Your task to perform on an android device: show emergency info Image 0: 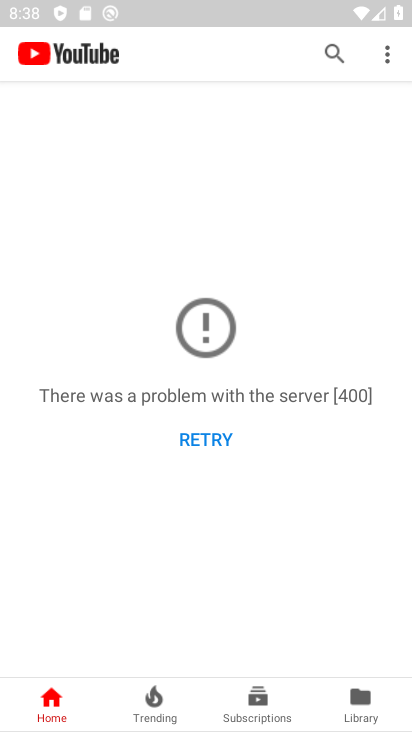
Step 0: press home button
Your task to perform on an android device: show emergency info Image 1: 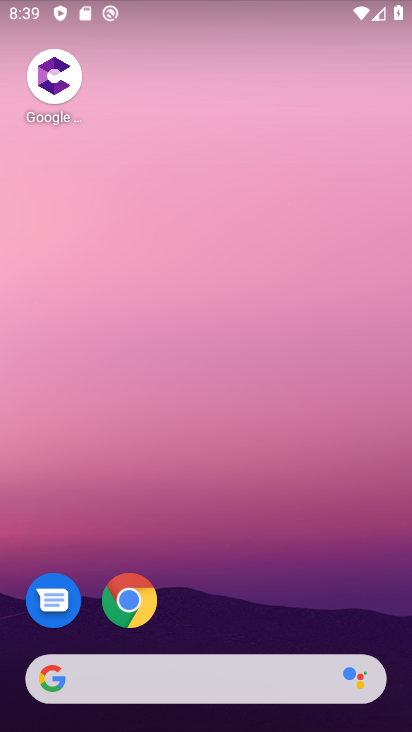
Step 1: drag from (195, 628) to (218, 185)
Your task to perform on an android device: show emergency info Image 2: 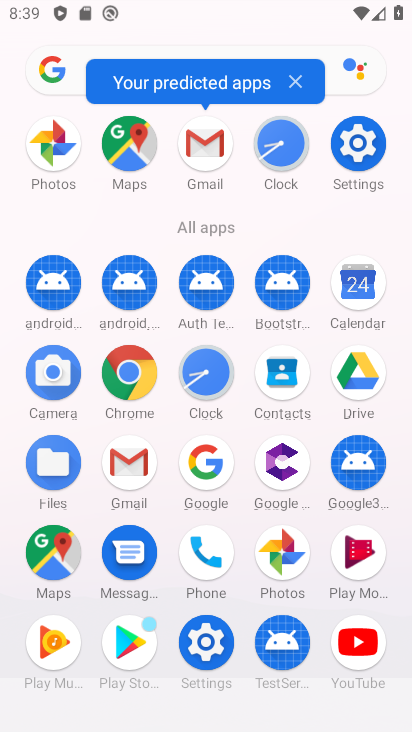
Step 2: click (377, 124)
Your task to perform on an android device: show emergency info Image 3: 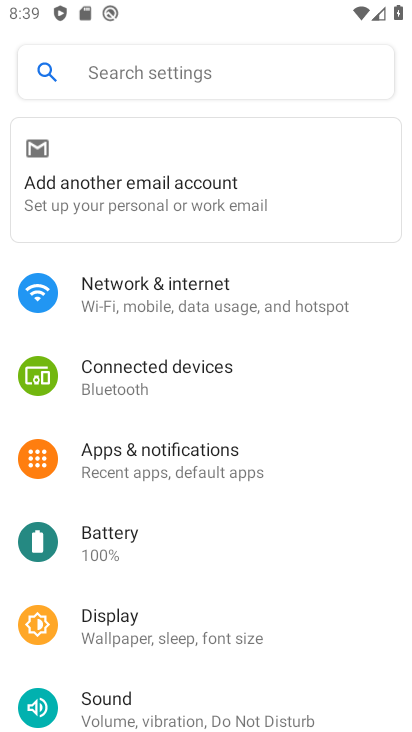
Step 3: drag from (153, 663) to (246, 143)
Your task to perform on an android device: show emergency info Image 4: 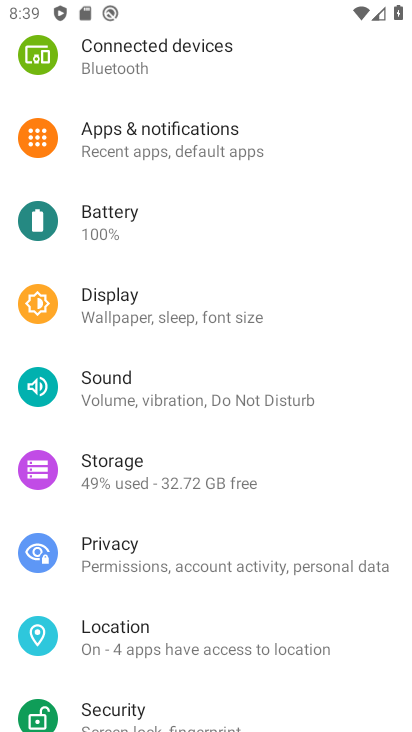
Step 4: drag from (93, 688) to (264, 29)
Your task to perform on an android device: show emergency info Image 5: 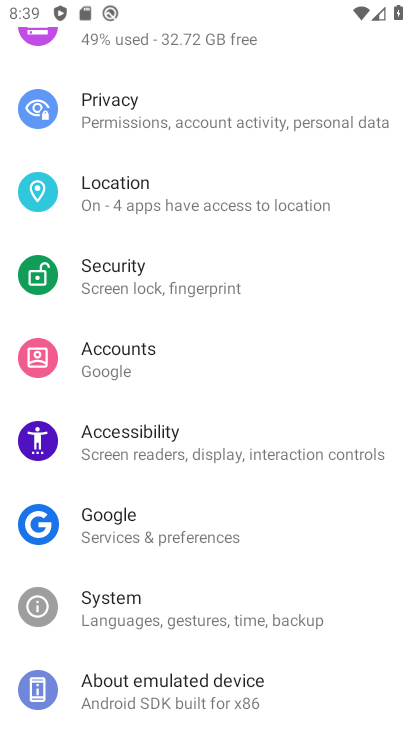
Step 5: click (175, 704)
Your task to perform on an android device: show emergency info Image 6: 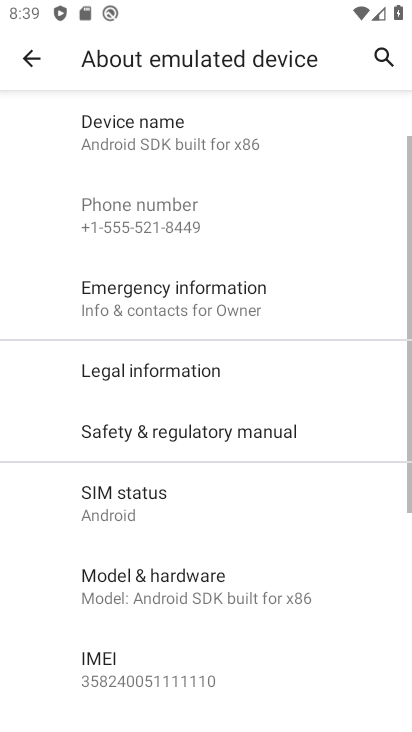
Step 6: click (221, 285)
Your task to perform on an android device: show emergency info Image 7: 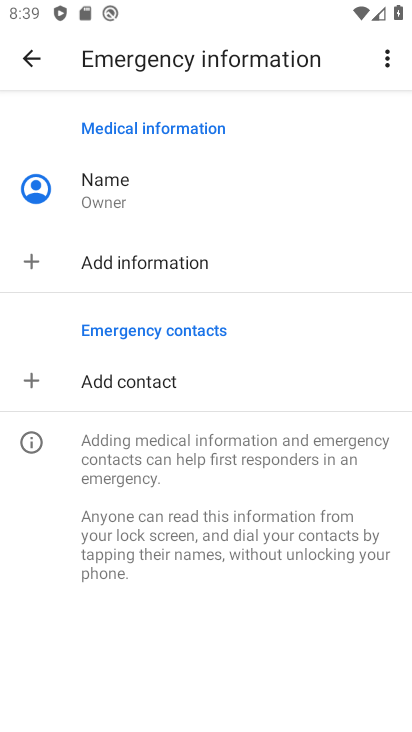
Step 7: task complete